Your task to perform on an android device: change the clock style Image 0: 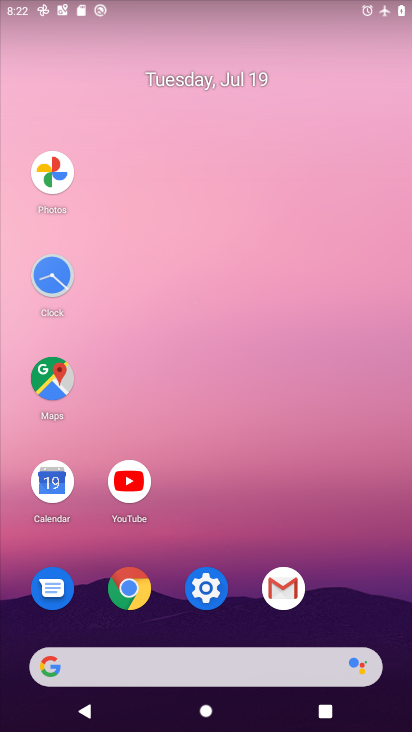
Step 0: click (52, 275)
Your task to perform on an android device: change the clock style Image 1: 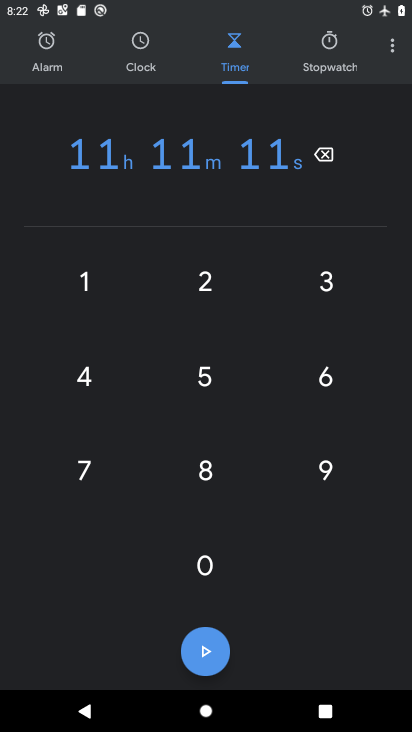
Step 1: click (396, 51)
Your task to perform on an android device: change the clock style Image 2: 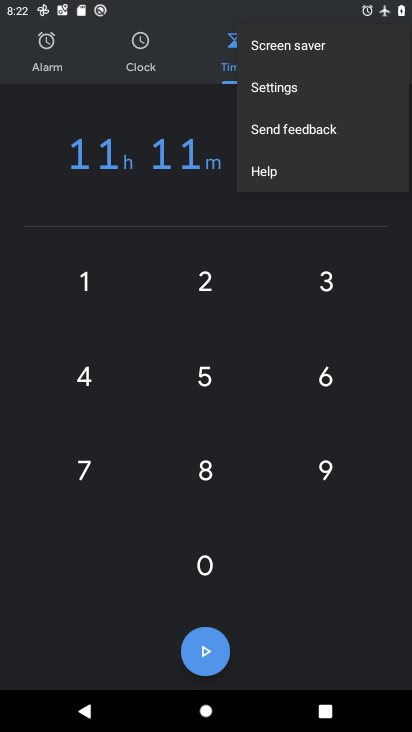
Step 2: click (286, 80)
Your task to perform on an android device: change the clock style Image 3: 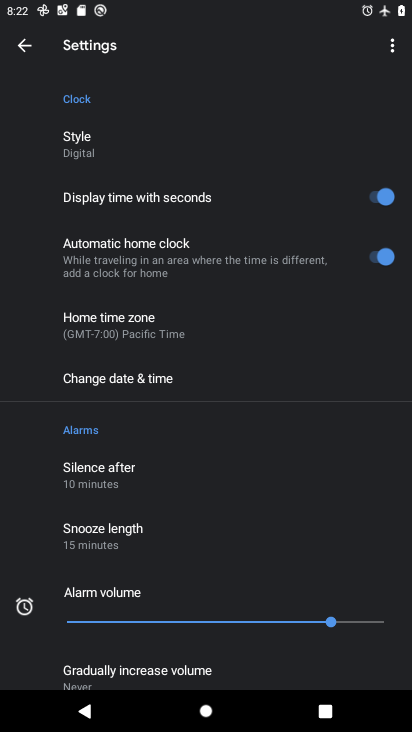
Step 3: click (90, 134)
Your task to perform on an android device: change the clock style Image 4: 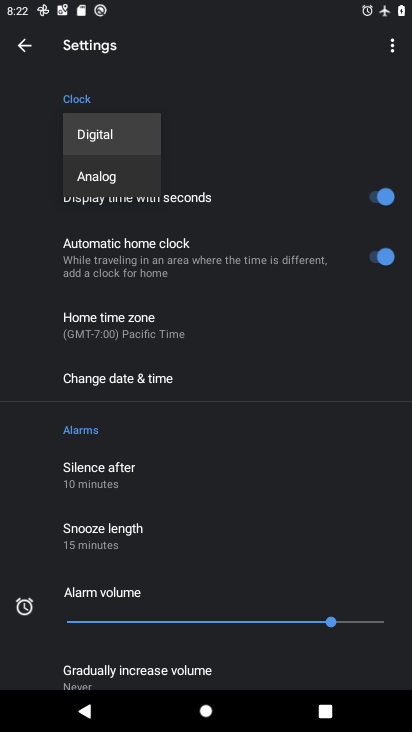
Step 4: click (116, 177)
Your task to perform on an android device: change the clock style Image 5: 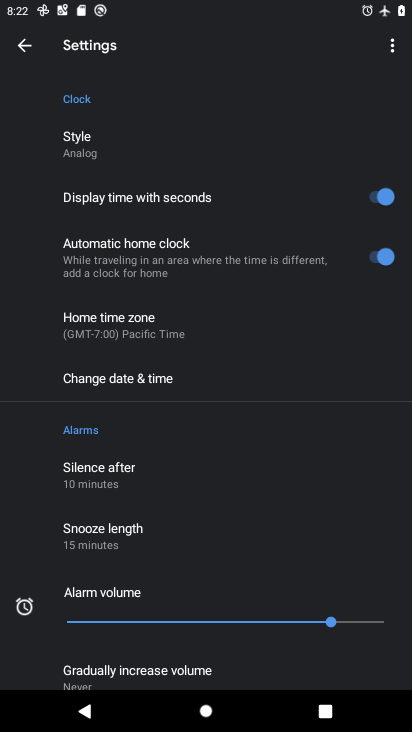
Step 5: task complete